Your task to perform on an android device: open a new tab in the chrome app Image 0: 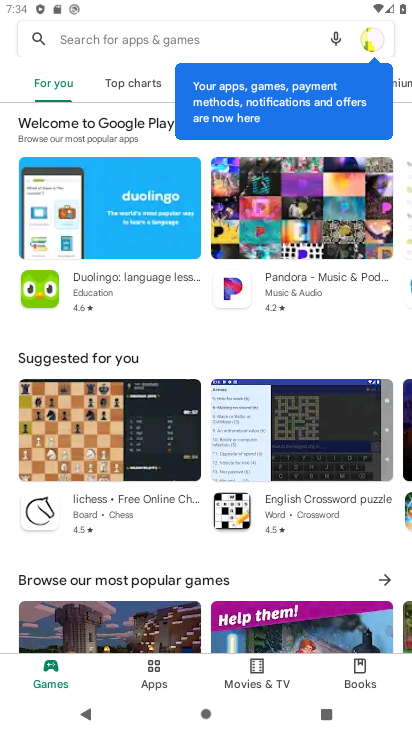
Step 0: press home button
Your task to perform on an android device: open a new tab in the chrome app Image 1: 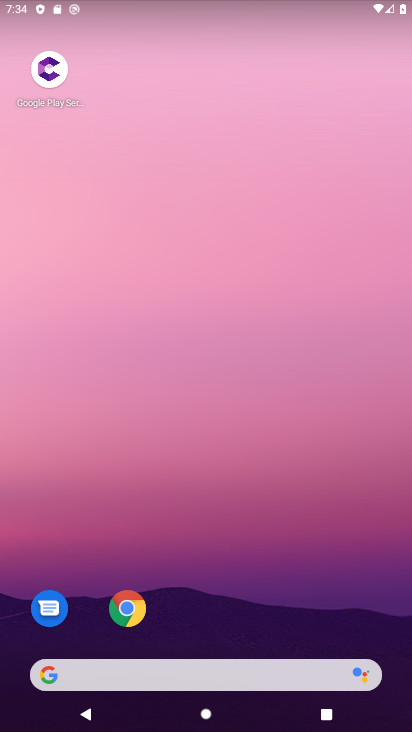
Step 1: drag from (253, 617) to (277, 264)
Your task to perform on an android device: open a new tab in the chrome app Image 2: 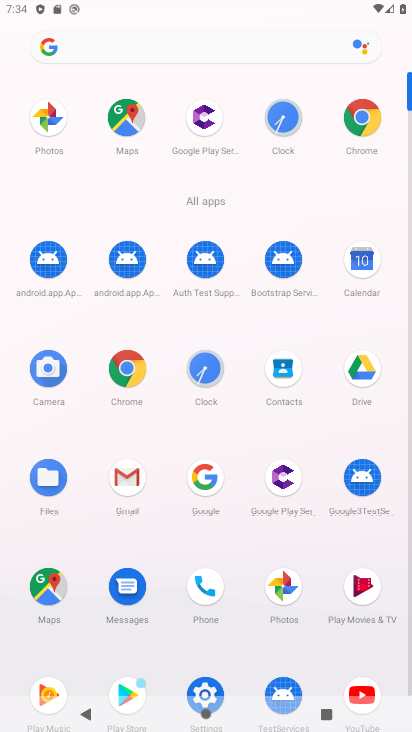
Step 2: click (355, 119)
Your task to perform on an android device: open a new tab in the chrome app Image 3: 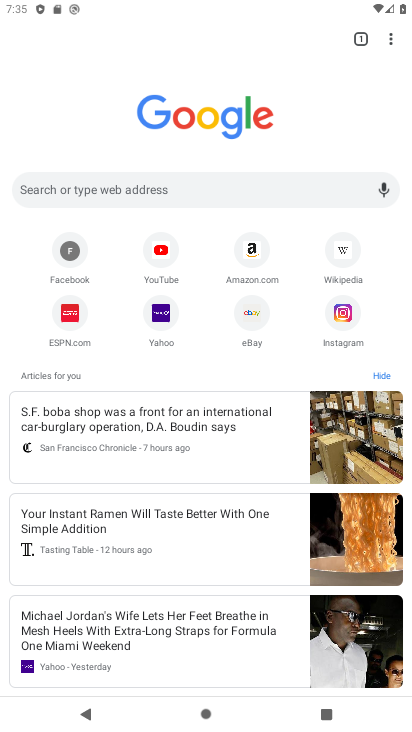
Step 3: task complete